Your task to perform on an android device: open app "ColorNote Notepad Notes" (install if not already installed) and go to login screen Image 0: 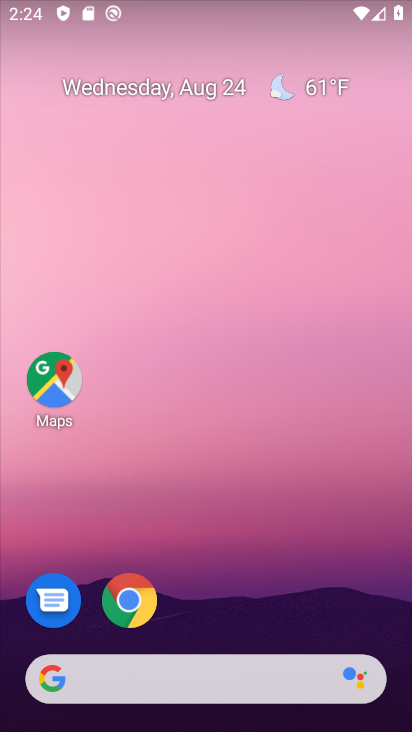
Step 0: drag from (222, 598) to (302, 70)
Your task to perform on an android device: open app "ColorNote Notepad Notes" (install if not already installed) and go to login screen Image 1: 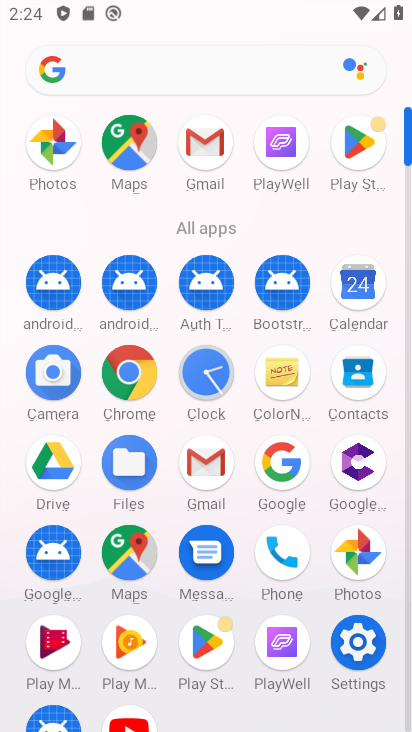
Step 1: click (365, 126)
Your task to perform on an android device: open app "ColorNote Notepad Notes" (install if not already installed) and go to login screen Image 2: 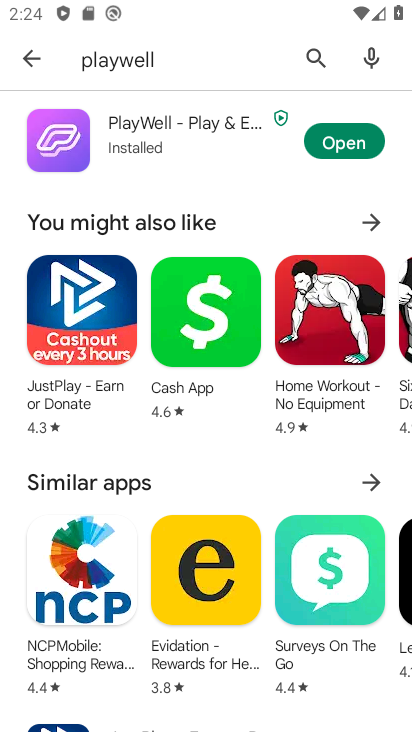
Step 2: click (314, 49)
Your task to perform on an android device: open app "ColorNote Notepad Notes" (install if not already installed) and go to login screen Image 3: 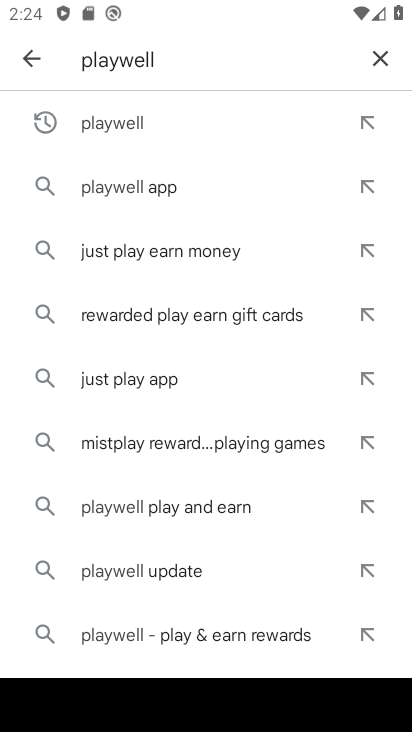
Step 3: click (378, 61)
Your task to perform on an android device: open app "ColorNote Notepad Notes" (install if not already installed) and go to login screen Image 4: 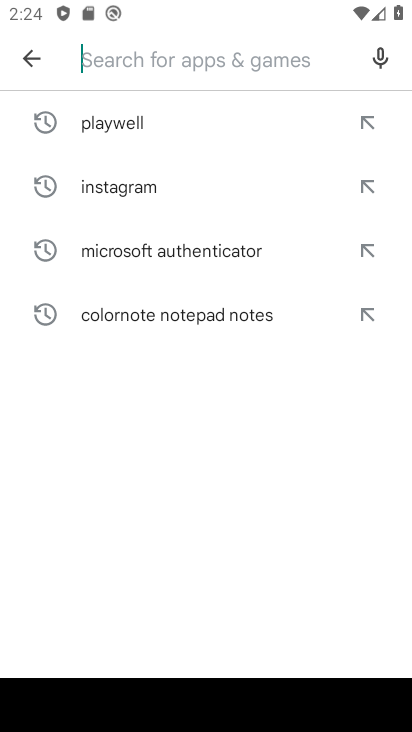
Step 4: click (102, 320)
Your task to perform on an android device: open app "ColorNote Notepad Notes" (install if not already installed) and go to login screen Image 5: 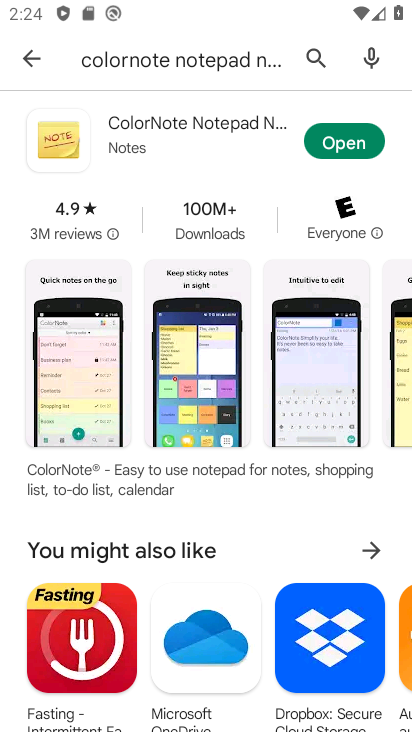
Step 5: click (333, 135)
Your task to perform on an android device: open app "ColorNote Notepad Notes" (install if not already installed) and go to login screen Image 6: 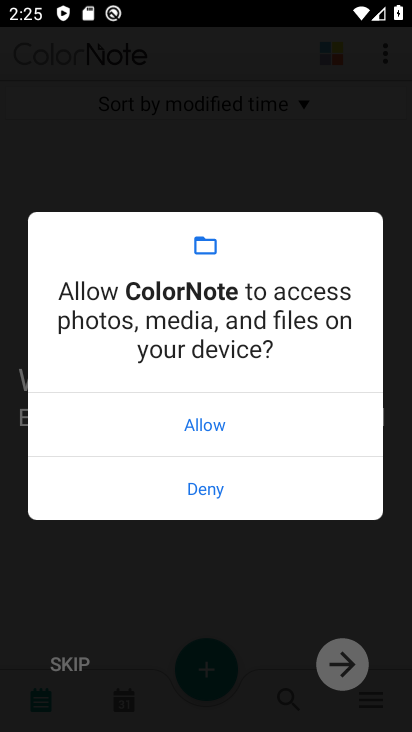
Step 6: click (268, 413)
Your task to perform on an android device: open app "ColorNote Notepad Notes" (install if not already installed) and go to login screen Image 7: 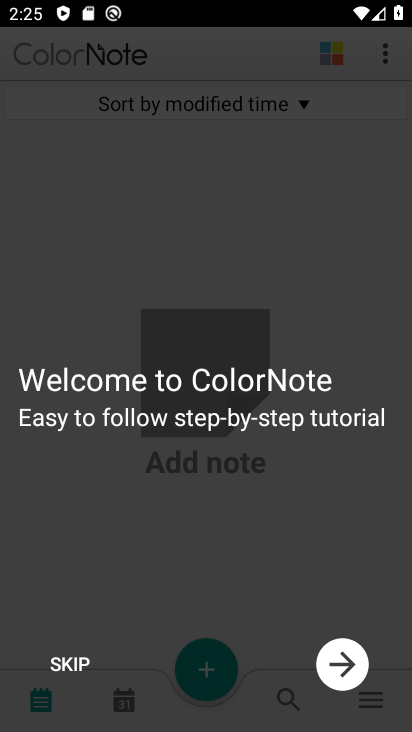
Step 7: task complete